Your task to perform on an android device: What's on my calendar tomorrow? Image 0: 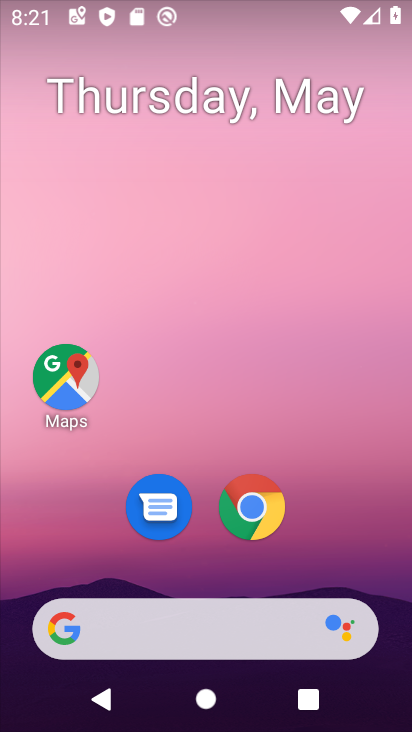
Step 0: drag from (305, 676) to (176, 279)
Your task to perform on an android device: What's on my calendar tomorrow? Image 1: 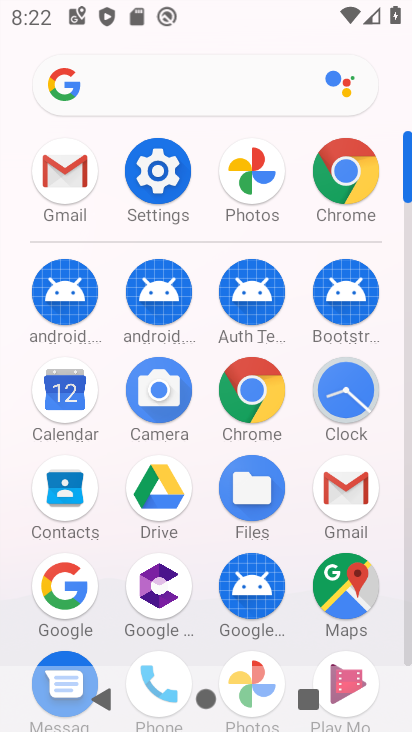
Step 1: click (147, 84)
Your task to perform on an android device: What's on my calendar tomorrow? Image 2: 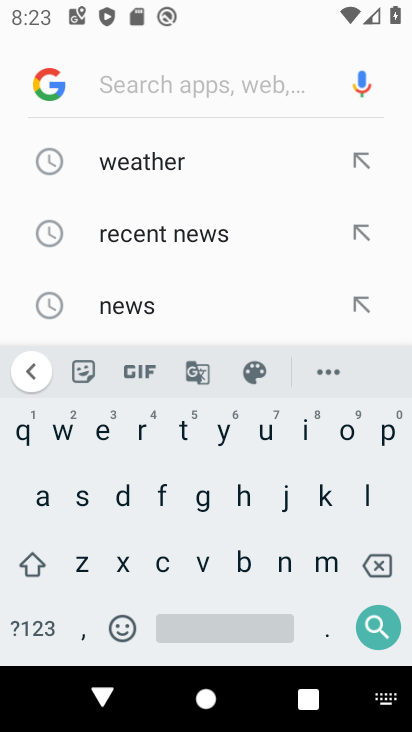
Step 2: press home button
Your task to perform on an android device: What's on my calendar tomorrow? Image 3: 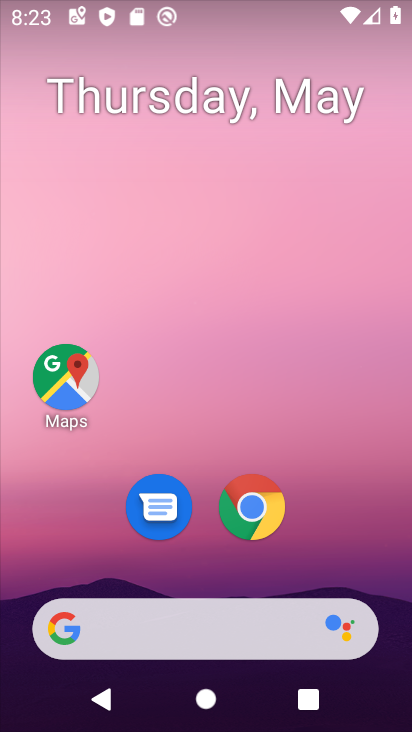
Step 3: drag from (221, 661) to (253, 178)
Your task to perform on an android device: What's on my calendar tomorrow? Image 4: 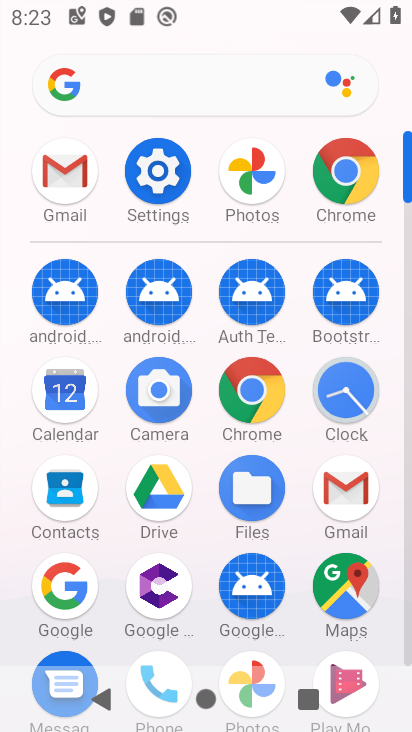
Step 4: click (70, 408)
Your task to perform on an android device: What's on my calendar tomorrow? Image 5: 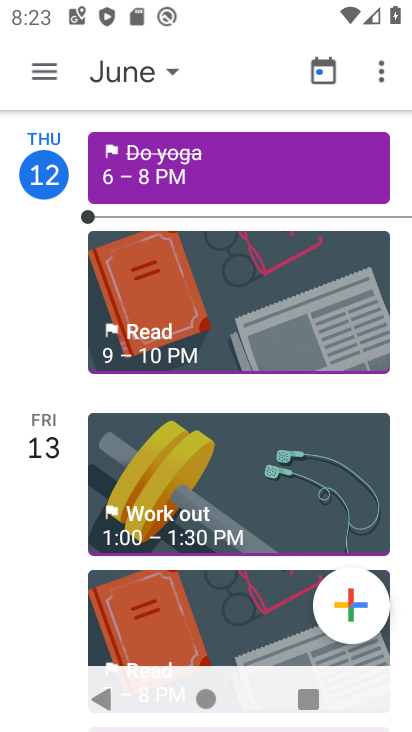
Step 5: task complete